Your task to perform on an android device: Check the news Image 0: 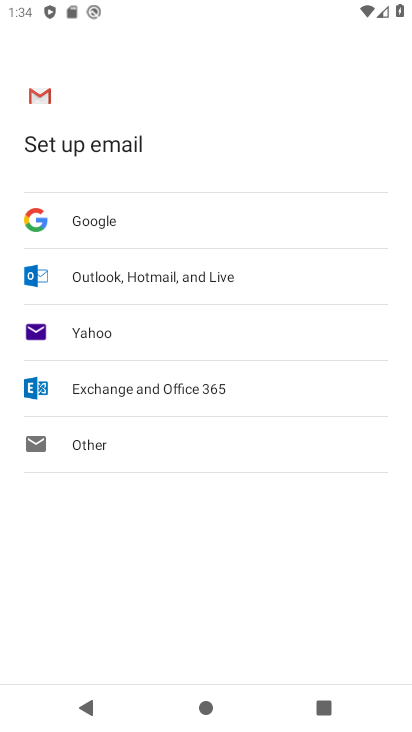
Step 0: press back button
Your task to perform on an android device: Check the news Image 1: 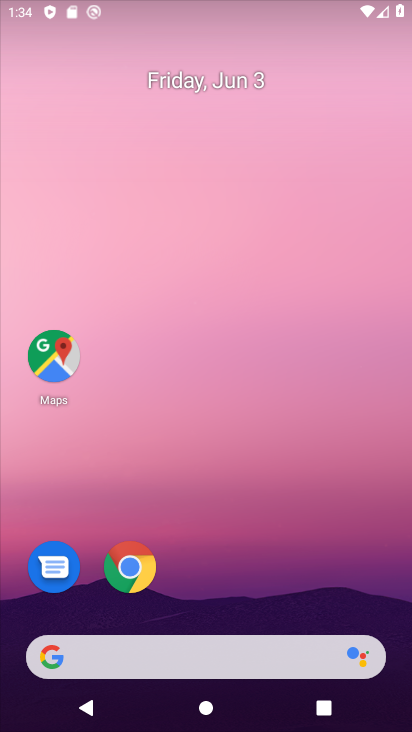
Step 1: click (135, 680)
Your task to perform on an android device: Check the news Image 2: 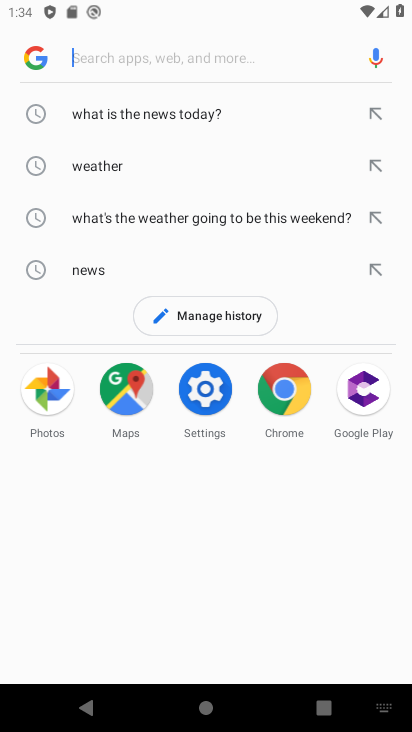
Step 2: click (96, 272)
Your task to perform on an android device: Check the news Image 3: 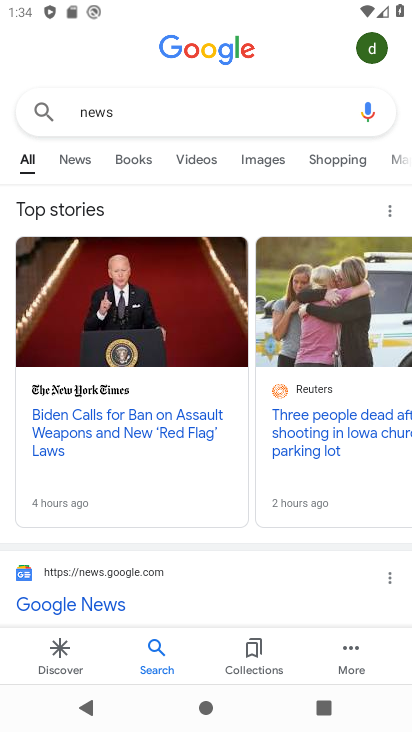
Step 3: task complete